Your task to perform on an android device: turn off priority inbox in the gmail app Image 0: 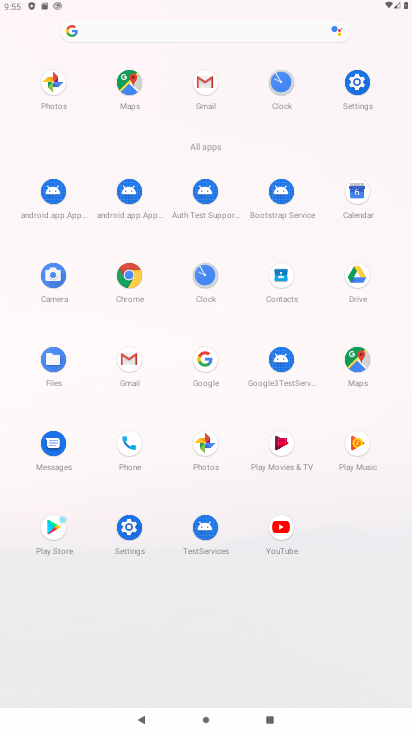
Step 0: click (124, 361)
Your task to perform on an android device: turn off priority inbox in the gmail app Image 1: 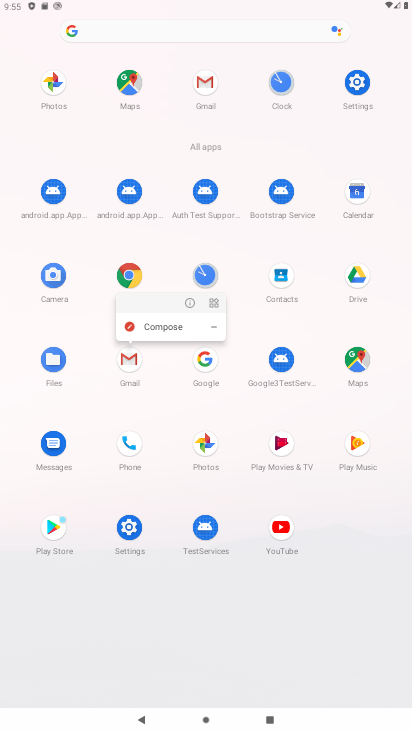
Step 1: click (134, 358)
Your task to perform on an android device: turn off priority inbox in the gmail app Image 2: 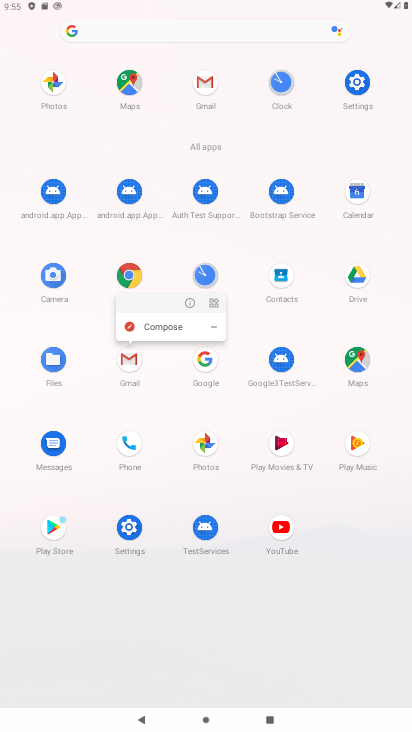
Step 2: click (125, 366)
Your task to perform on an android device: turn off priority inbox in the gmail app Image 3: 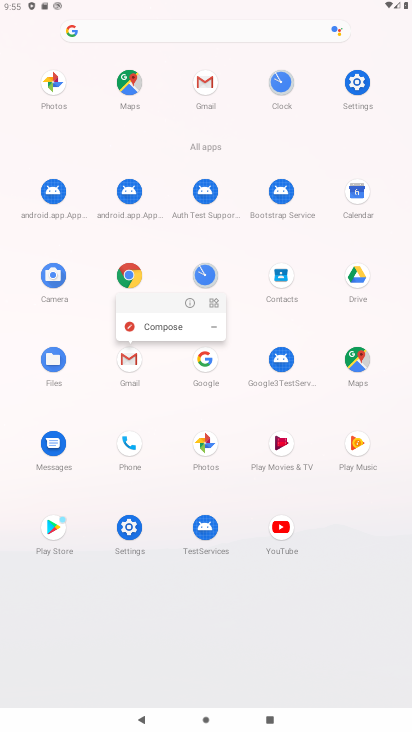
Step 3: click (125, 366)
Your task to perform on an android device: turn off priority inbox in the gmail app Image 4: 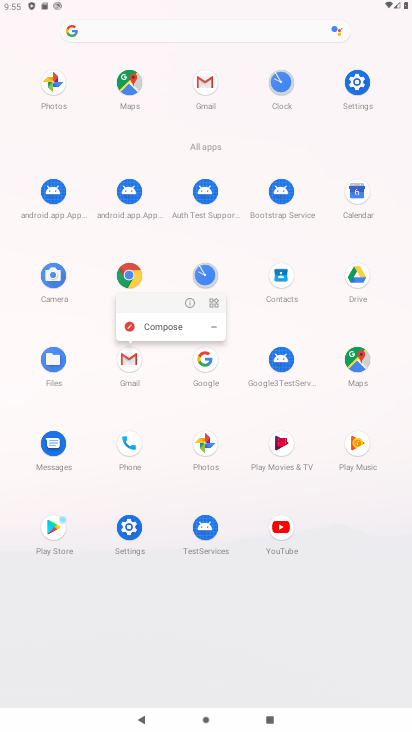
Step 4: click (130, 357)
Your task to perform on an android device: turn off priority inbox in the gmail app Image 5: 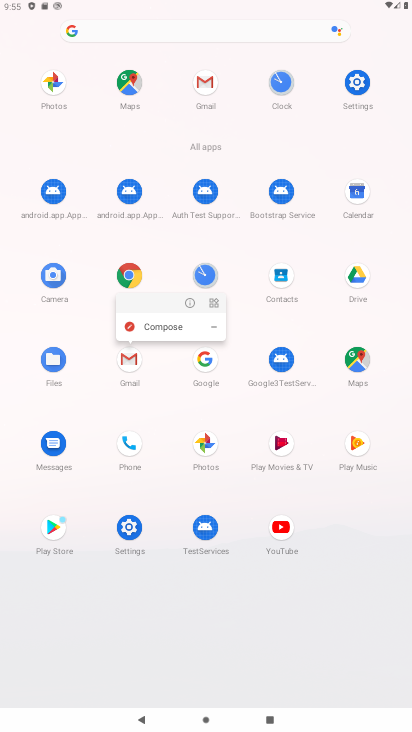
Step 5: click (130, 357)
Your task to perform on an android device: turn off priority inbox in the gmail app Image 6: 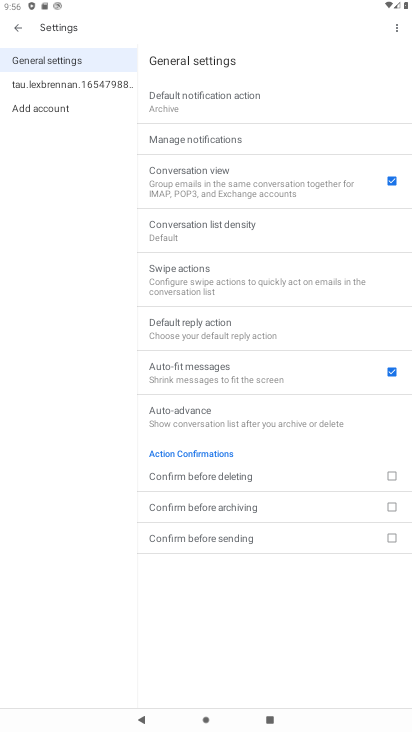
Step 6: press back button
Your task to perform on an android device: turn off priority inbox in the gmail app Image 7: 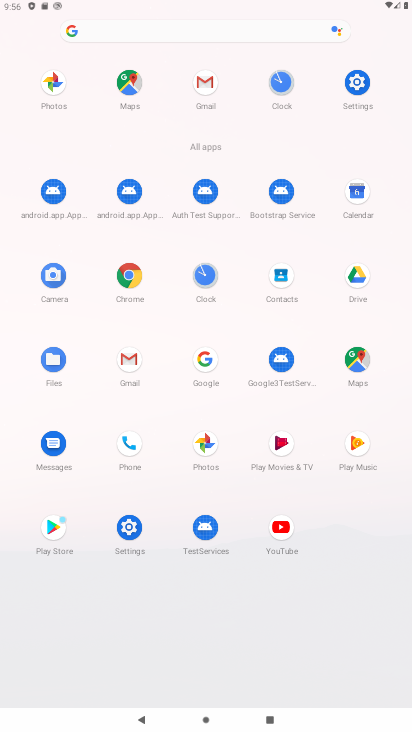
Step 7: click (198, 93)
Your task to perform on an android device: turn off priority inbox in the gmail app Image 8: 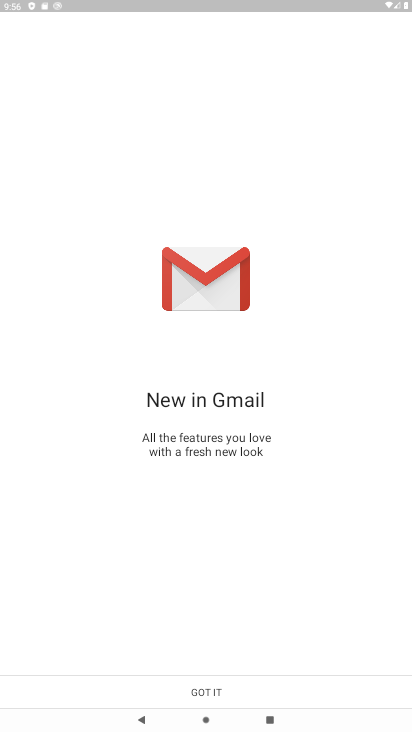
Step 8: click (256, 692)
Your task to perform on an android device: turn off priority inbox in the gmail app Image 9: 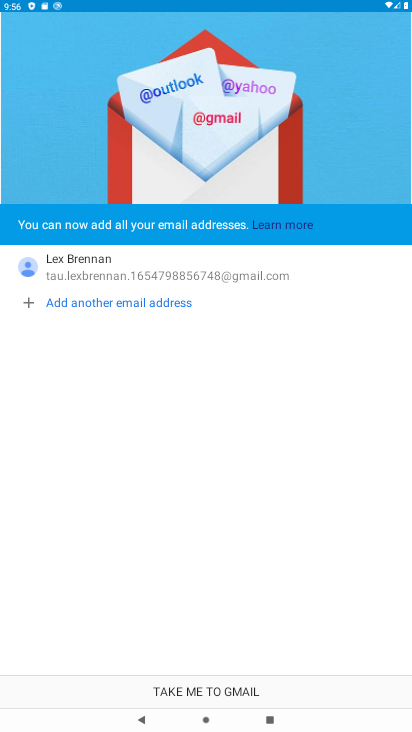
Step 9: click (255, 692)
Your task to perform on an android device: turn off priority inbox in the gmail app Image 10: 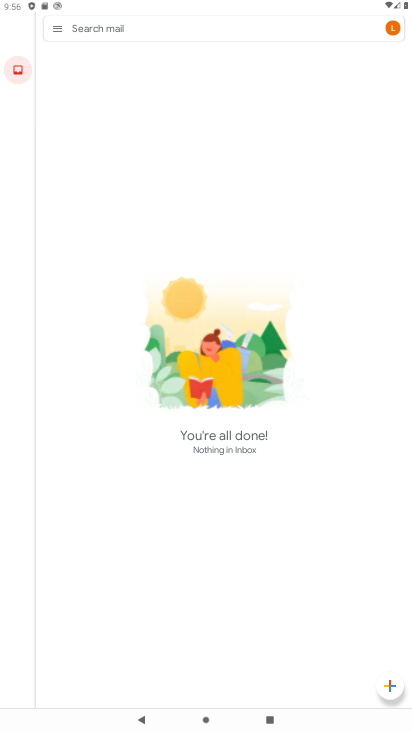
Step 10: click (45, 28)
Your task to perform on an android device: turn off priority inbox in the gmail app Image 11: 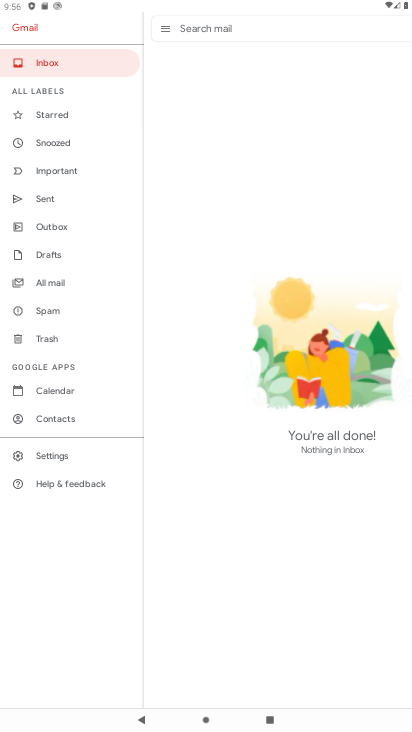
Step 11: click (58, 460)
Your task to perform on an android device: turn off priority inbox in the gmail app Image 12: 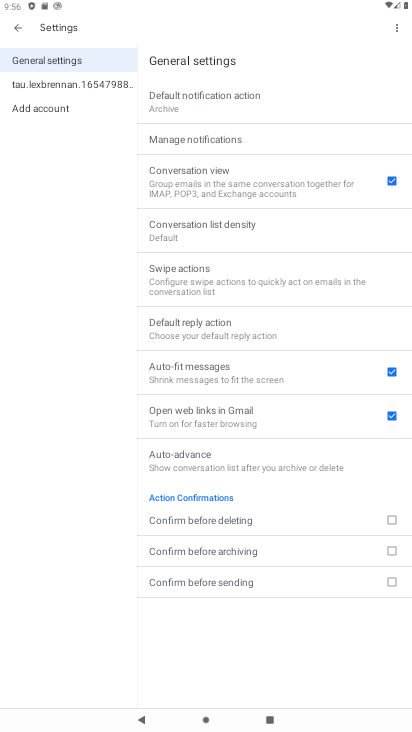
Step 12: click (64, 78)
Your task to perform on an android device: turn off priority inbox in the gmail app Image 13: 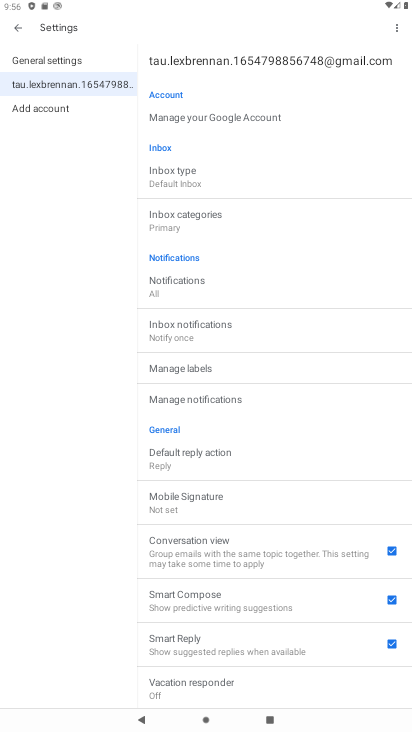
Step 13: click (191, 181)
Your task to perform on an android device: turn off priority inbox in the gmail app Image 14: 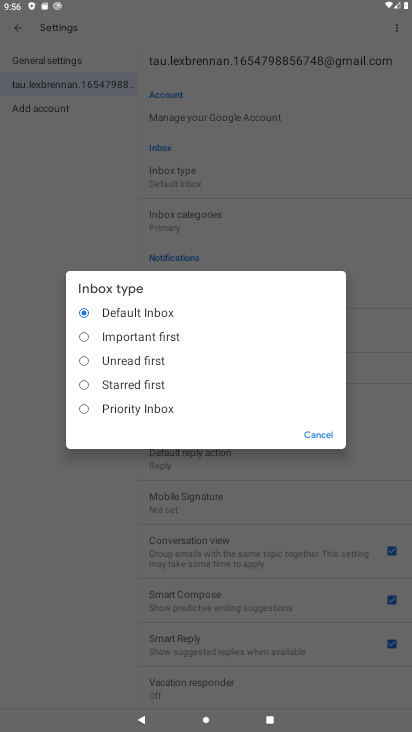
Step 14: task complete